Your task to perform on an android device: turn on priority inbox in the gmail app Image 0: 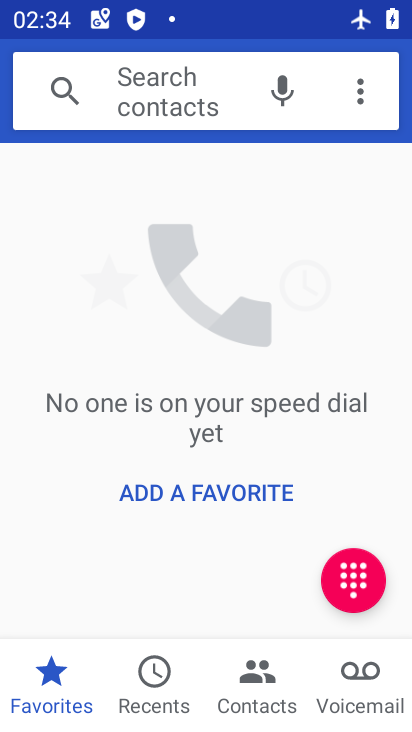
Step 0: press home button
Your task to perform on an android device: turn on priority inbox in the gmail app Image 1: 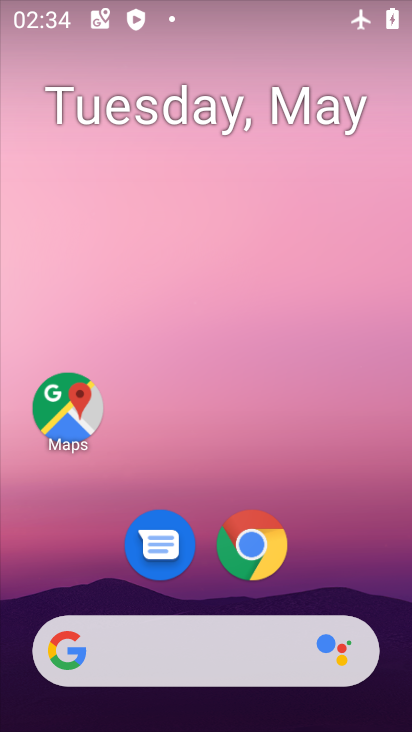
Step 1: drag from (389, 633) to (374, 17)
Your task to perform on an android device: turn on priority inbox in the gmail app Image 2: 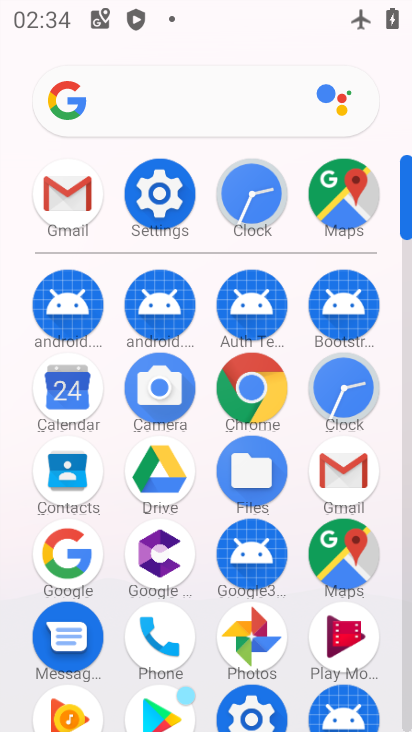
Step 2: click (406, 696)
Your task to perform on an android device: turn on priority inbox in the gmail app Image 3: 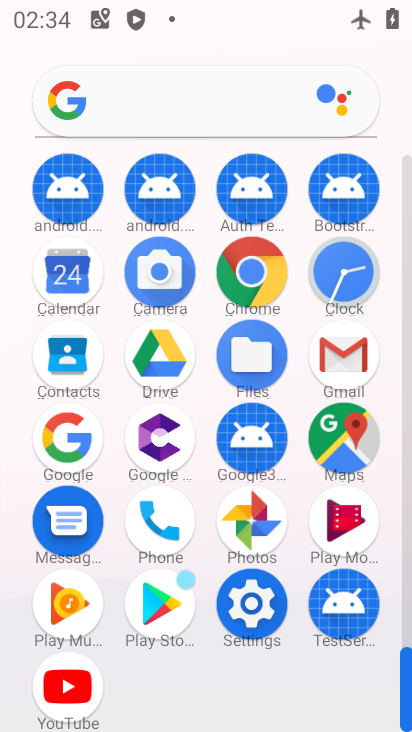
Step 3: click (341, 350)
Your task to perform on an android device: turn on priority inbox in the gmail app Image 4: 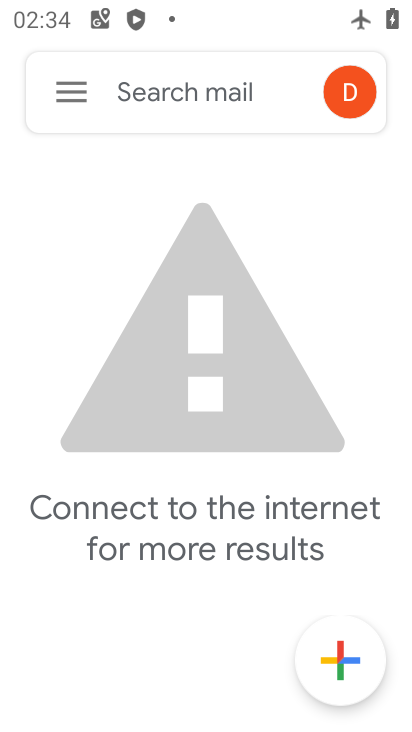
Step 4: click (68, 93)
Your task to perform on an android device: turn on priority inbox in the gmail app Image 5: 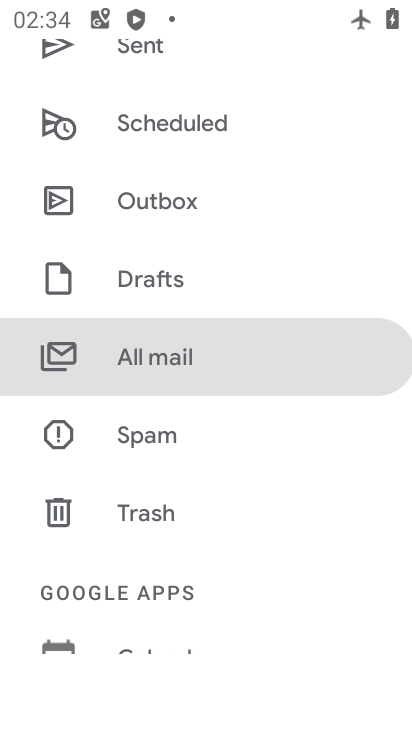
Step 5: drag from (254, 588) to (252, 215)
Your task to perform on an android device: turn on priority inbox in the gmail app Image 6: 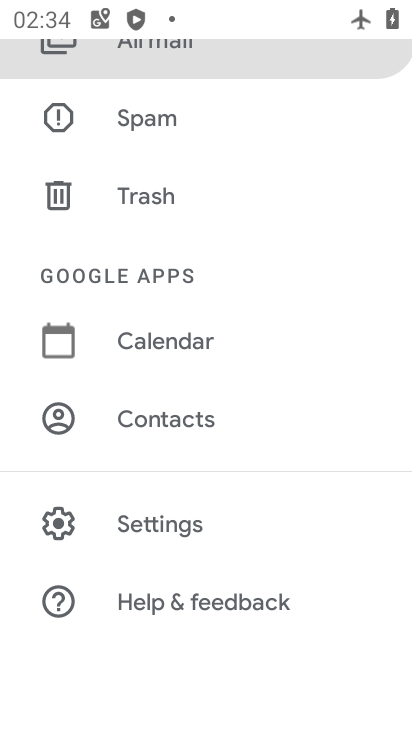
Step 6: click (167, 526)
Your task to perform on an android device: turn on priority inbox in the gmail app Image 7: 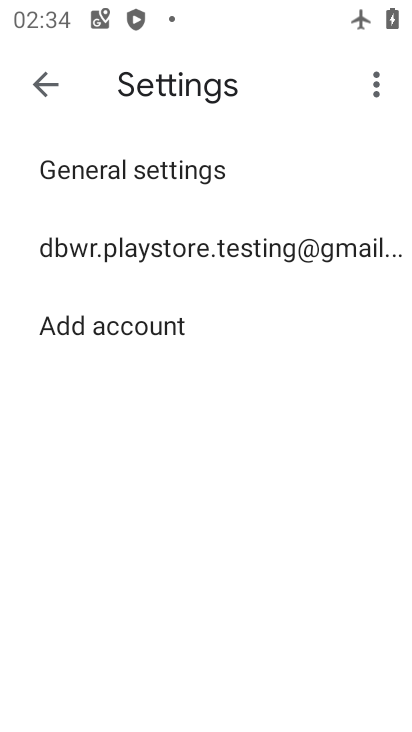
Step 7: click (190, 243)
Your task to perform on an android device: turn on priority inbox in the gmail app Image 8: 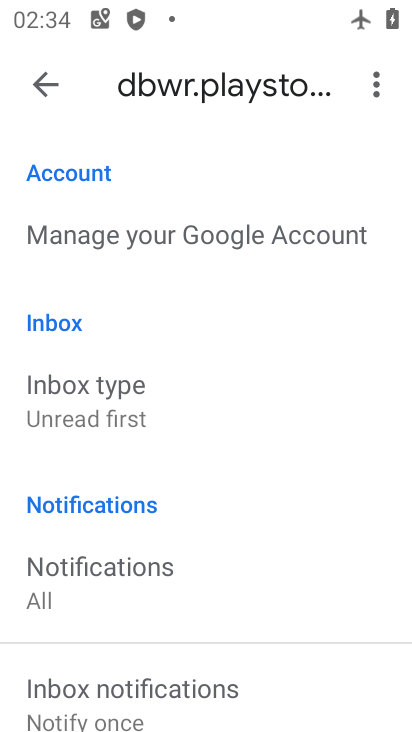
Step 8: click (81, 393)
Your task to perform on an android device: turn on priority inbox in the gmail app Image 9: 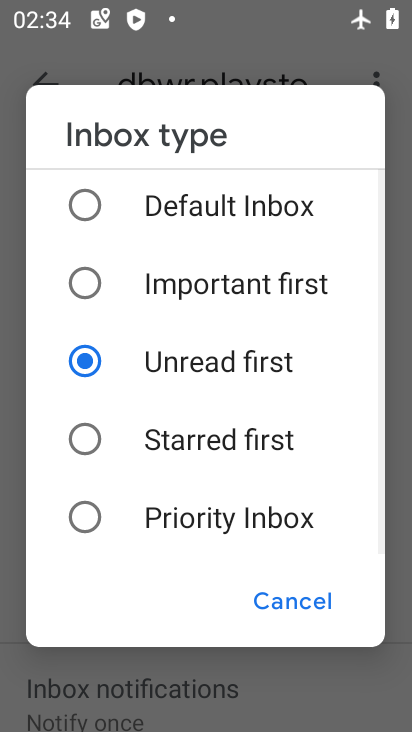
Step 9: click (92, 518)
Your task to perform on an android device: turn on priority inbox in the gmail app Image 10: 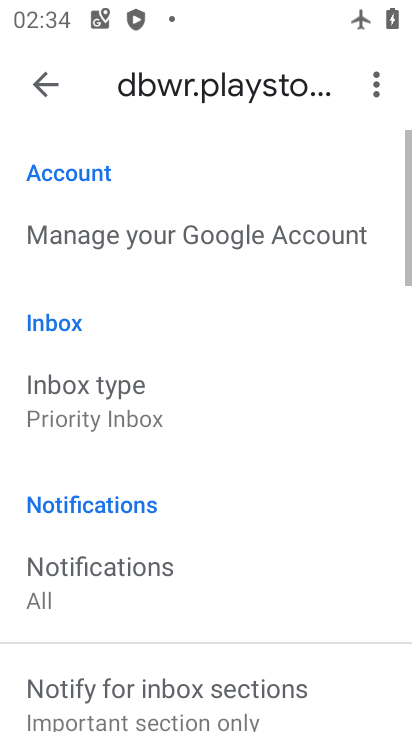
Step 10: task complete